Your task to perform on an android device: Open the calendar and show me this week's events? Image 0: 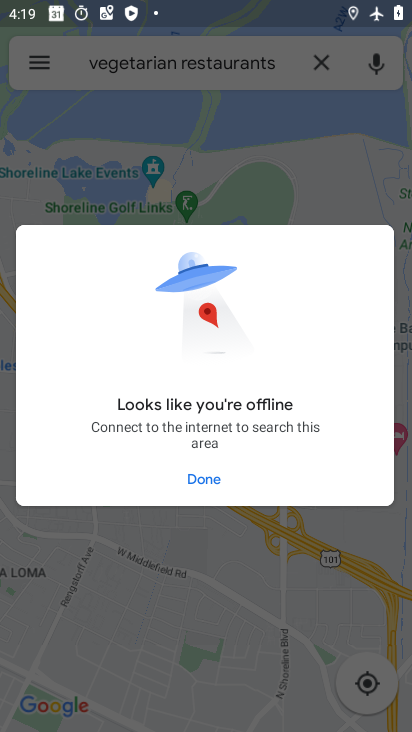
Step 0: press home button
Your task to perform on an android device: Open the calendar and show me this week's events? Image 1: 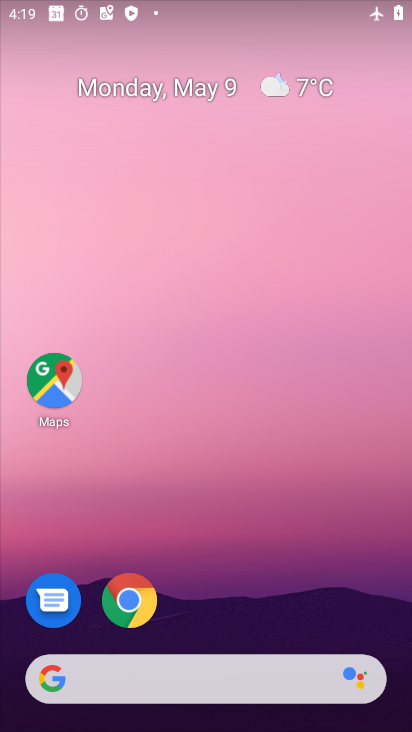
Step 1: drag from (308, 577) to (333, 187)
Your task to perform on an android device: Open the calendar and show me this week's events? Image 2: 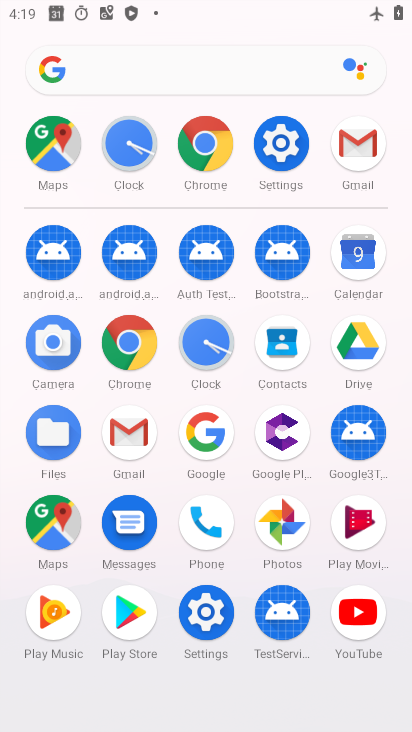
Step 2: click (346, 254)
Your task to perform on an android device: Open the calendar and show me this week's events? Image 3: 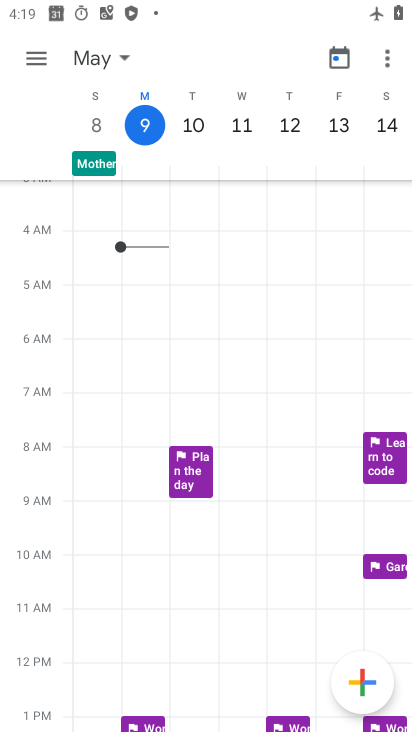
Step 3: task complete